Your task to perform on an android device: Open calendar and show me the first week of next month Image 0: 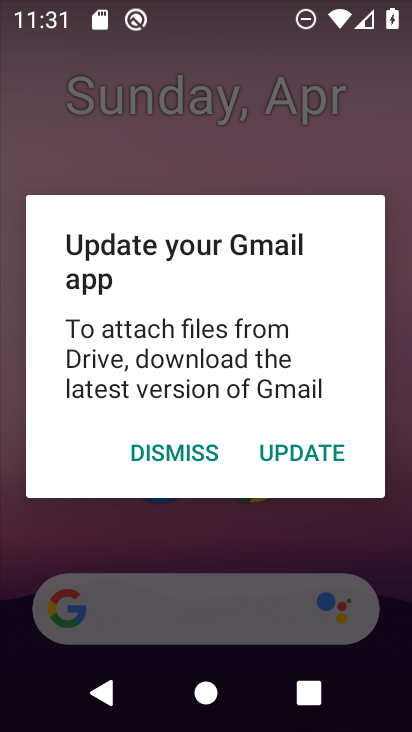
Step 0: press home button
Your task to perform on an android device: Open calendar and show me the first week of next month Image 1: 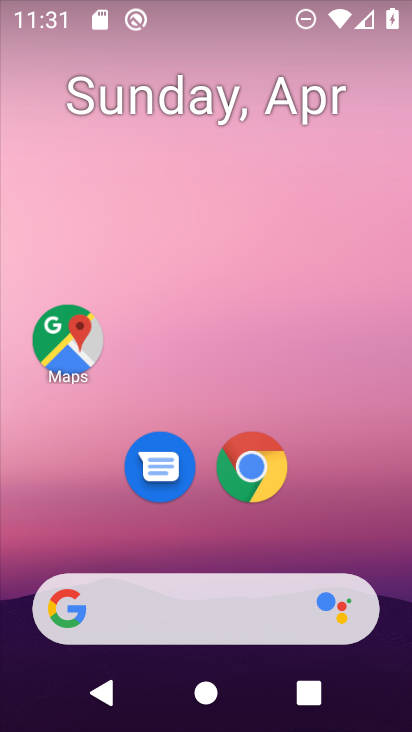
Step 1: drag from (373, 528) to (367, 65)
Your task to perform on an android device: Open calendar and show me the first week of next month Image 2: 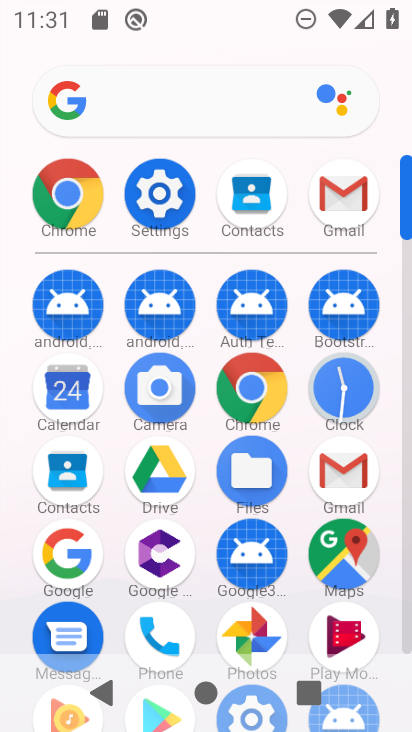
Step 2: click (58, 387)
Your task to perform on an android device: Open calendar and show me the first week of next month Image 3: 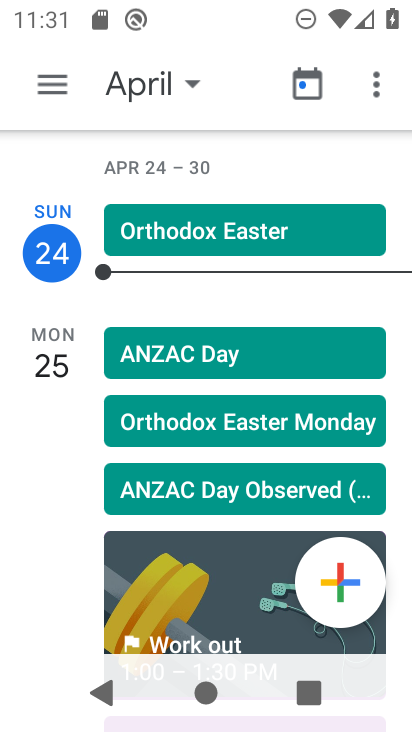
Step 3: click (195, 85)
Your task to perform on an android device: Open calendar and show me the first week of next month Image 4: 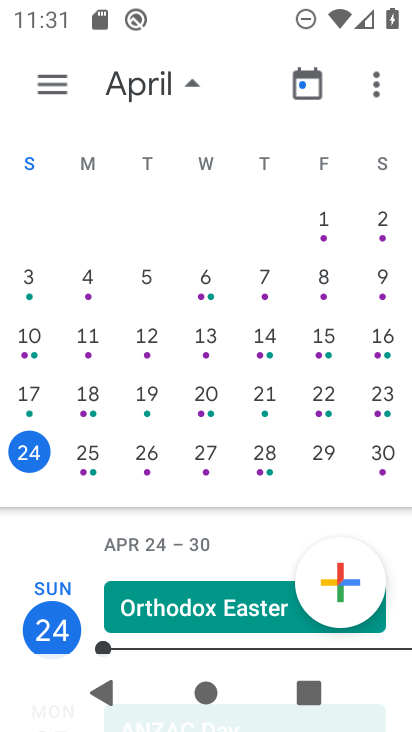
Step 4: drag from (259, 226) to (65, 217)
Your task to perform on an android device: Open calendar and show me the first week of next month Image 5: 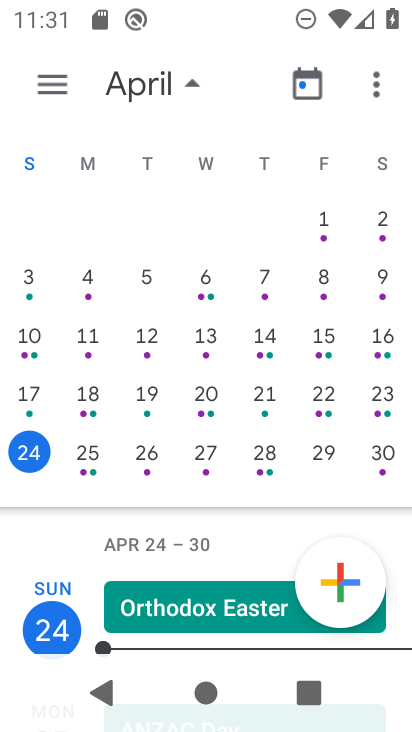
Step 5: drag from (371, 306) to (0, 299)
Your task to perform on an android device: Open calendar and show me the first week of next month Image 6: 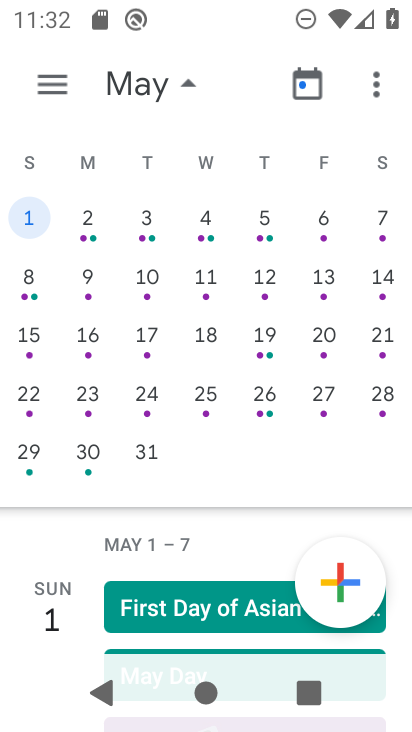
Step 6: click (89, 234)
Your task to perform on an android device: Open calendar and show me the first week of next month Image 7: 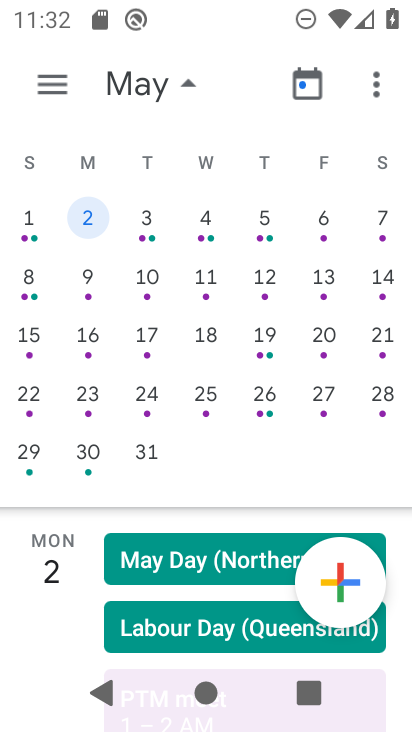
Step 7: task complete